Your task to perform on an android device: turn on the 24-hour format for clock Image 0: 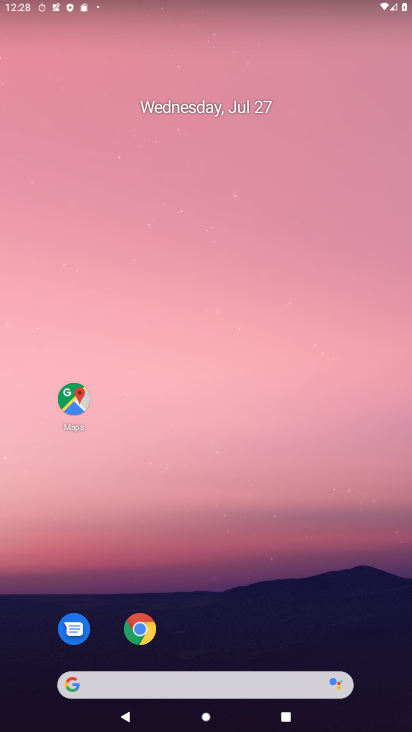
Step 0: drag from (366, 621) to (173, 85)
Your task to perform on an android device: turn on the 24-hour format for clock Image 1: 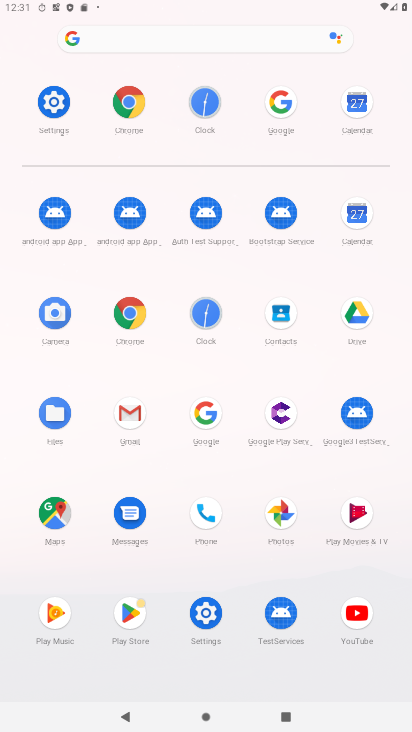
Step 1: click (201, 314)
Your task to perform on an android device: turn on the 24-hour format for clock Image 2: 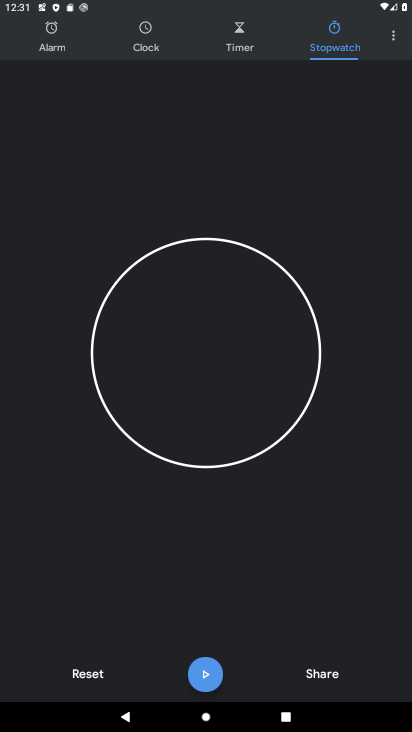
Step 2: click (391, 31)
Your task to perform on an android device: turn on the 24-hour format for clock Image 3: 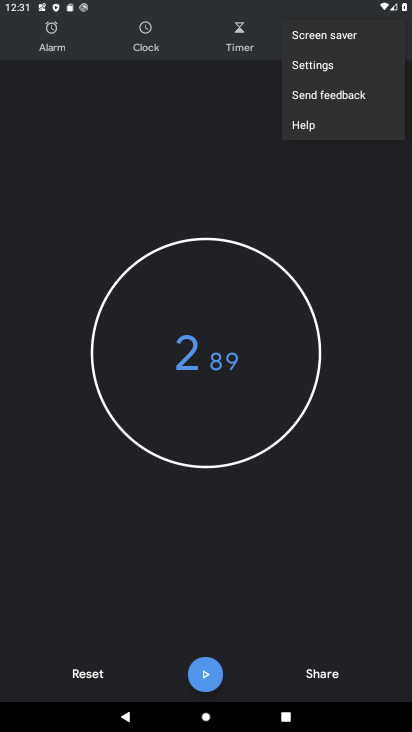
Step 3: click (323, 78)
Your task to perform on an android device: turn on the 24-hour format for clock Image 4: 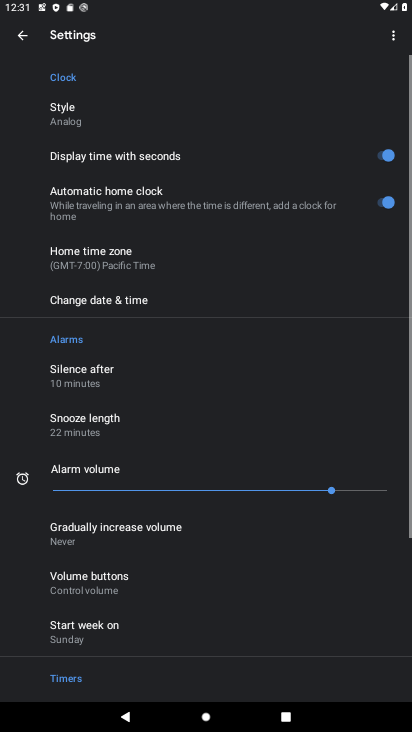
Step 4: click (104, 293)
Your task to perform on an android device: turn on the 24-hour format for clock Image 5: 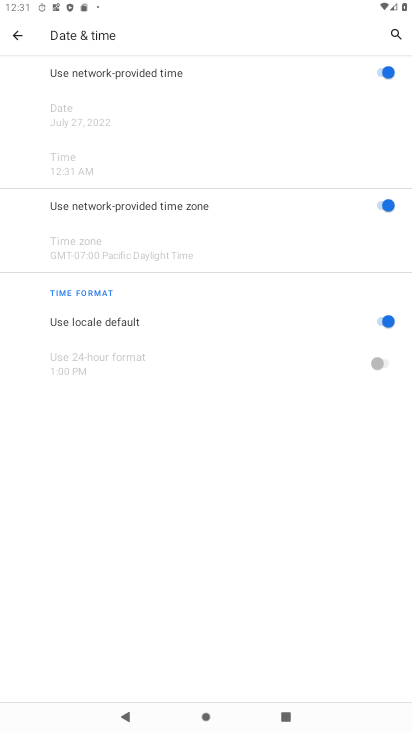
Step 5: task complete